Your task to perform on an android device: open app "Google Maps" (install if not already installed) Image 0: 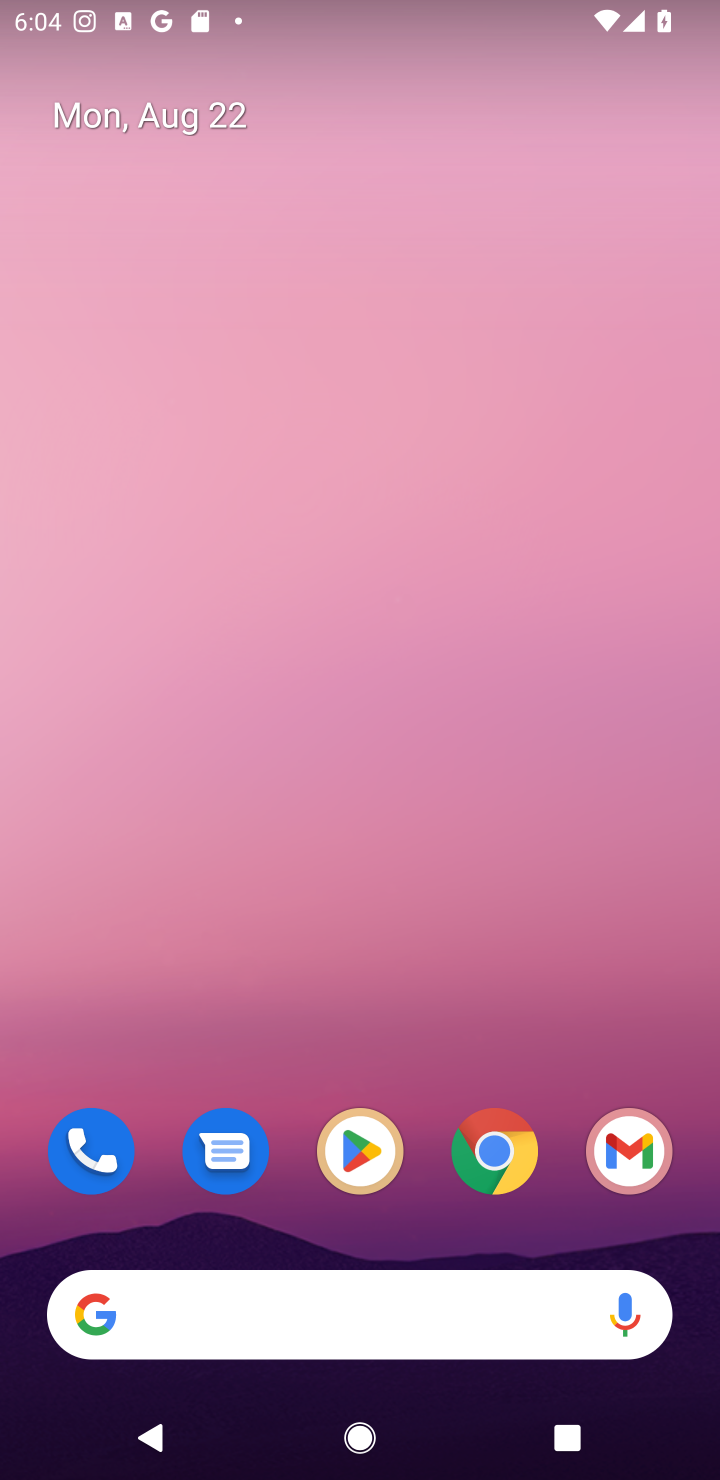
Step 0: click (356, 1139)
Your task to perform on an android device: open app "Google Maps" (install if not already installed) Image 1: 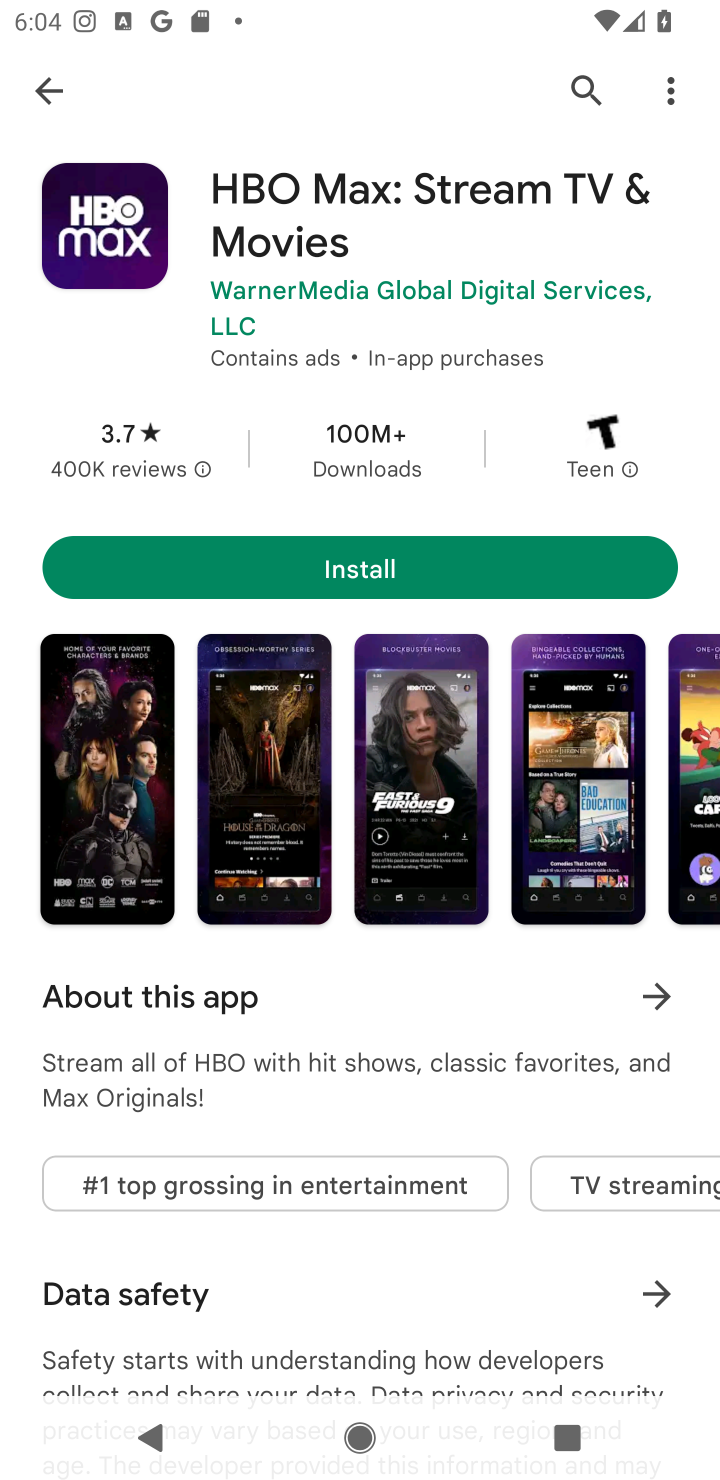
Step 1: click (582, 89)
Your task to perform on an android device: open app "Google Maps" (install if not already installed) Image 2: 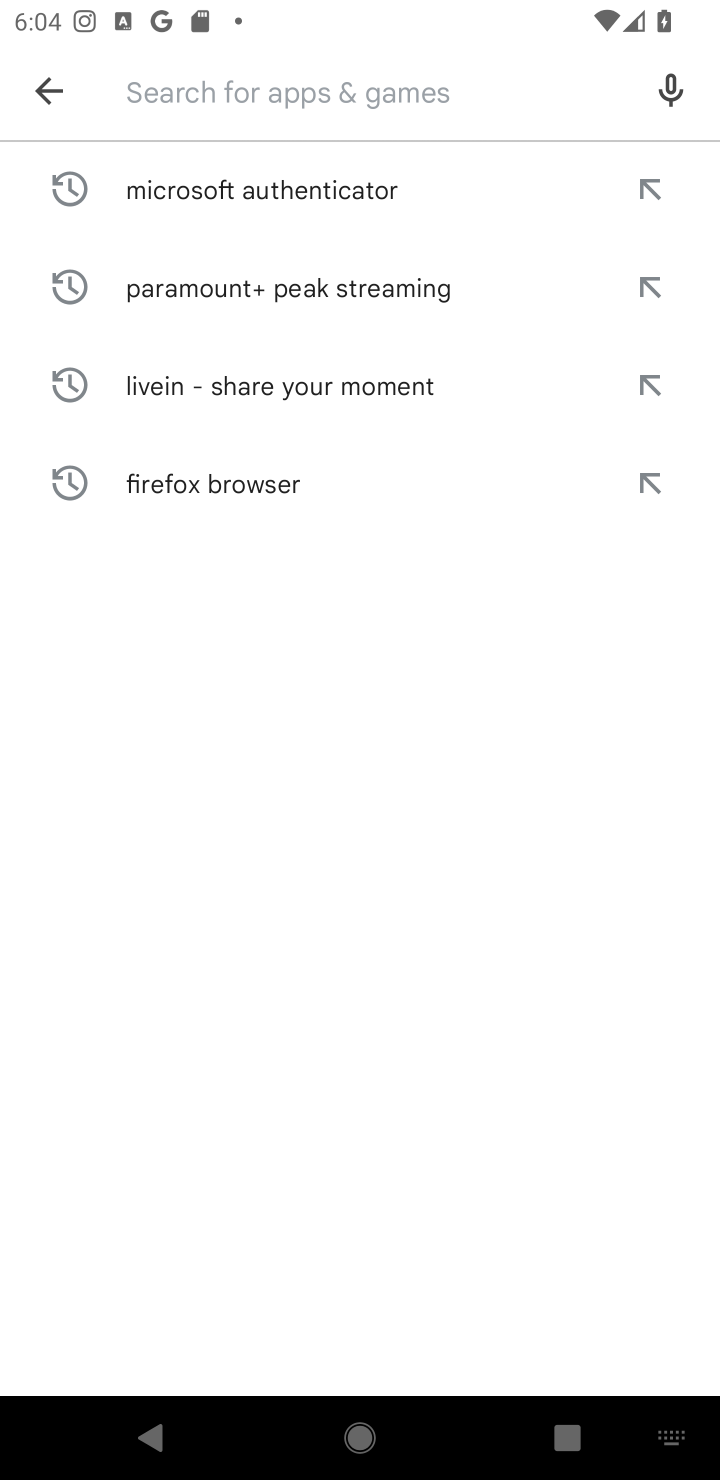
Step 2: type "Google Maps"
Your task to perform on an android device: open app "Google Maps" (install if not already installed) Image 3: 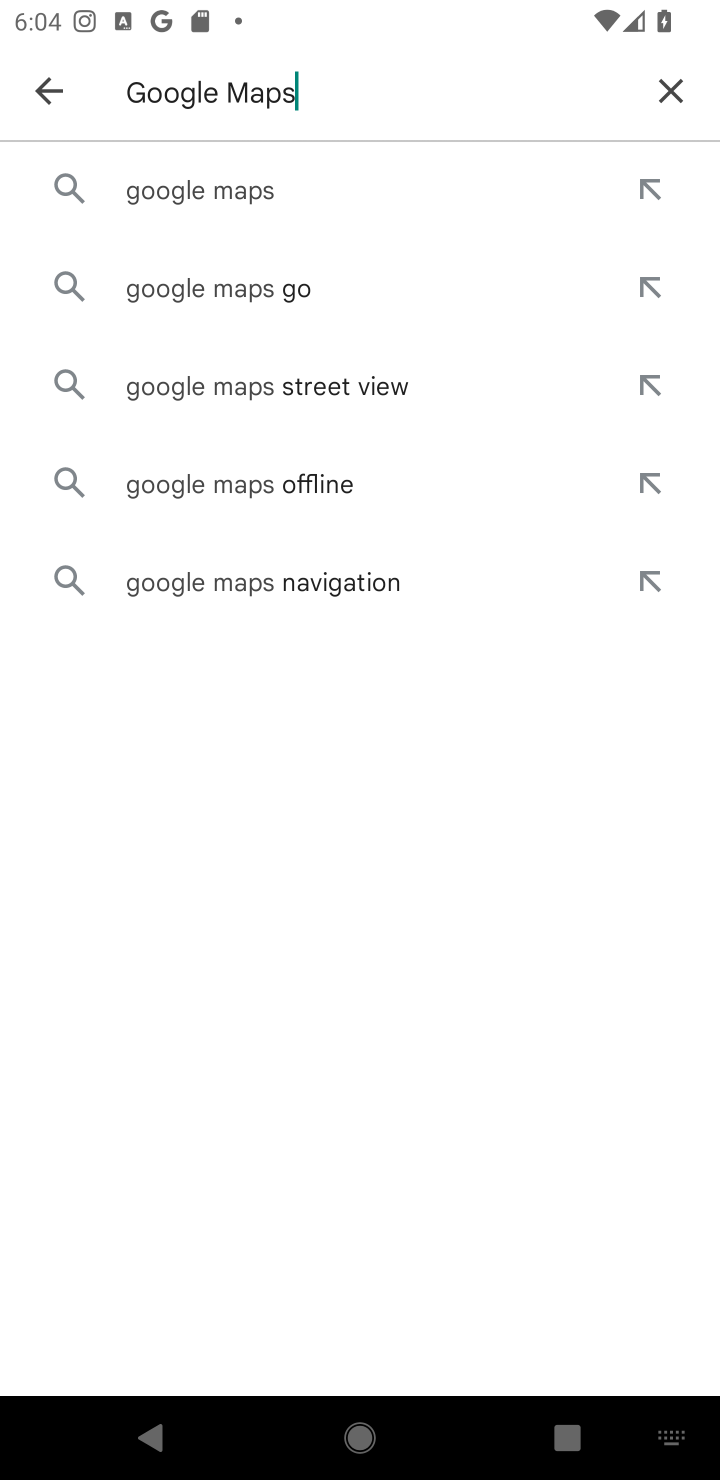
Step 3: click (244, 187)
Your task to perform on an android device: open app "Google Maps" (install if not already installed) Image 4: 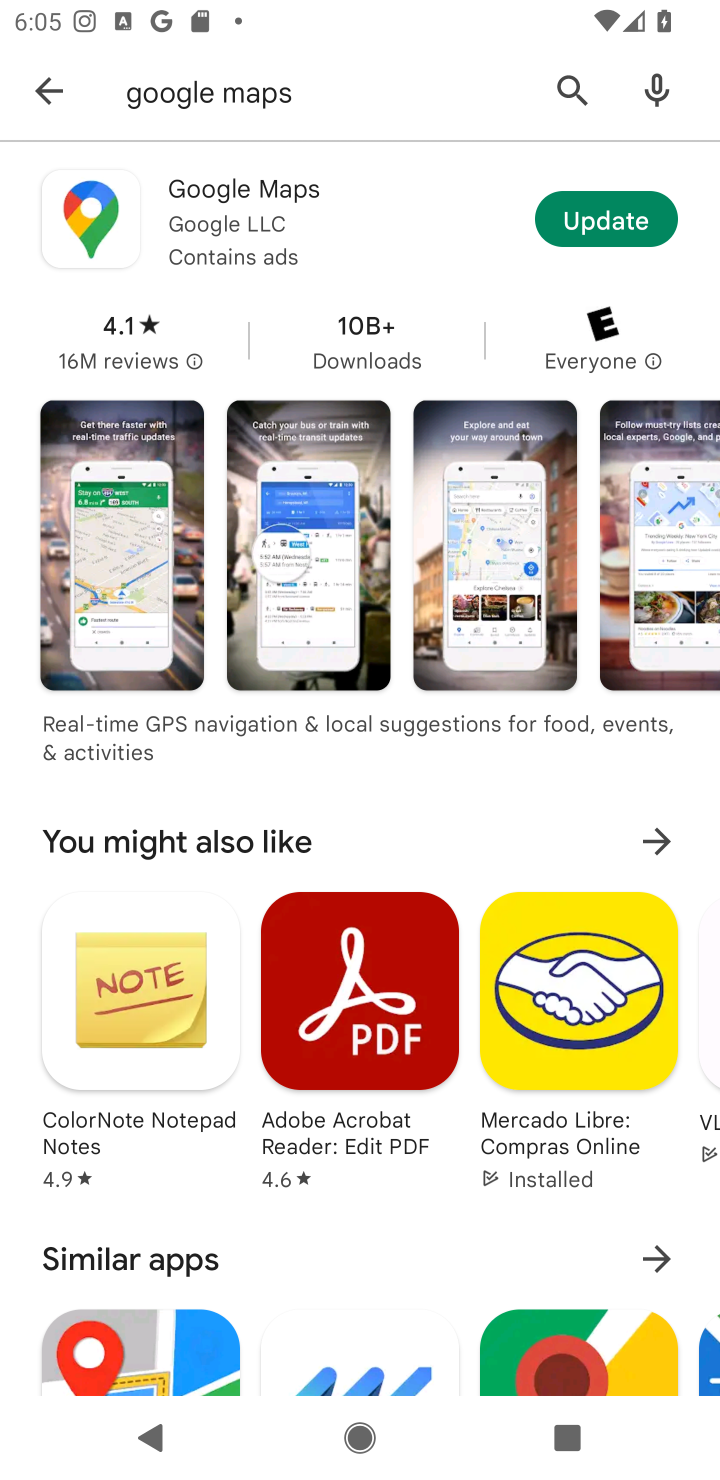
Step 4: click (212, 204)
Your task to perform on an android device: open app "Google Maps" (install if not already installed) Image 5: 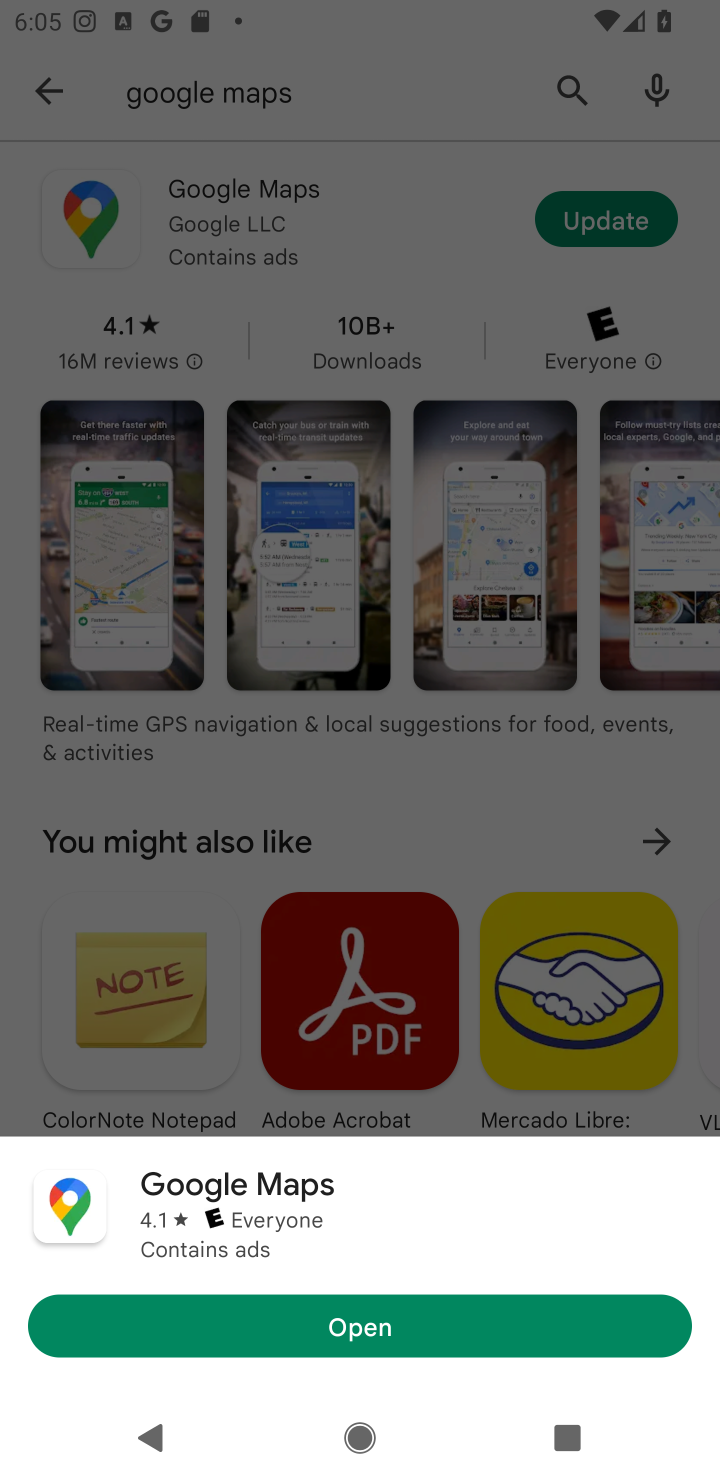
Step 5: click (354, 1329)
Your task to perform on an android device: open app "Google Maps" (install if not already installed) Image 6: 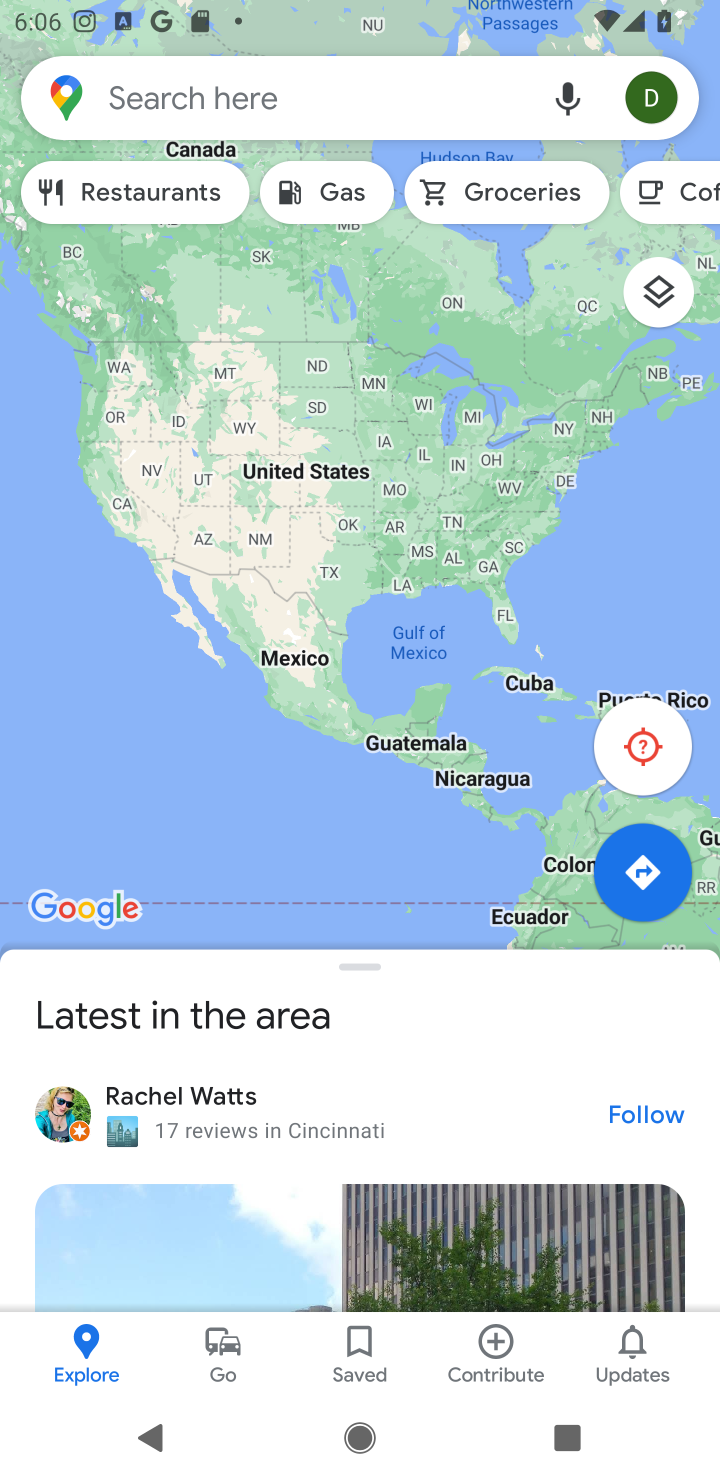
Step 6: task complete